Your task to perform on an android device: open a new tab in the chrome app Image 0: 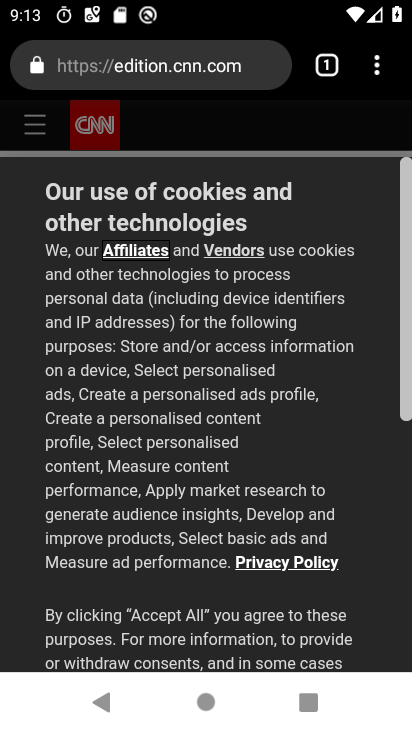
Step 0: drag from (229, 297) to (228, 162)
Your task to perform on an android device: open a new tab in the chrome app Image 1: 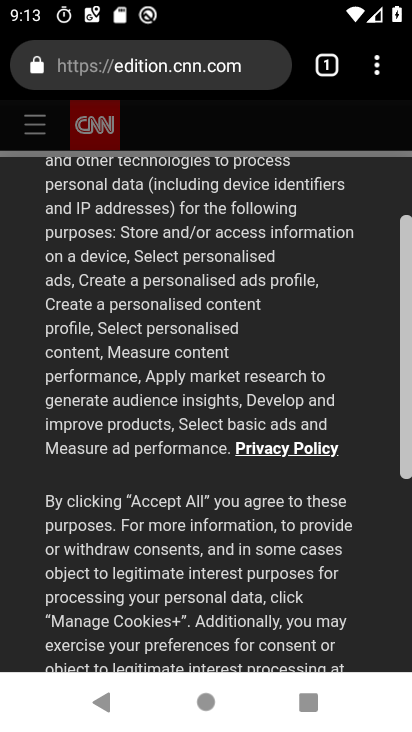
Step 1: press home button
Your task to perform on an android device: open a new tab in the chrome app Image 2: 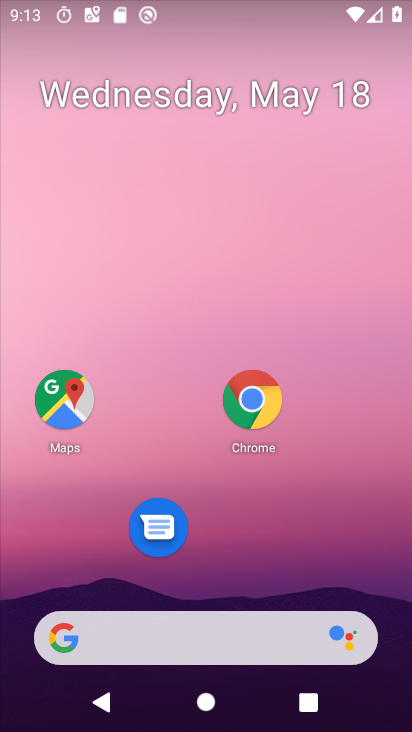
Step 2: click (255, 415)
Your task to perform on an android device: open a new tab in the chrome app Image 3: 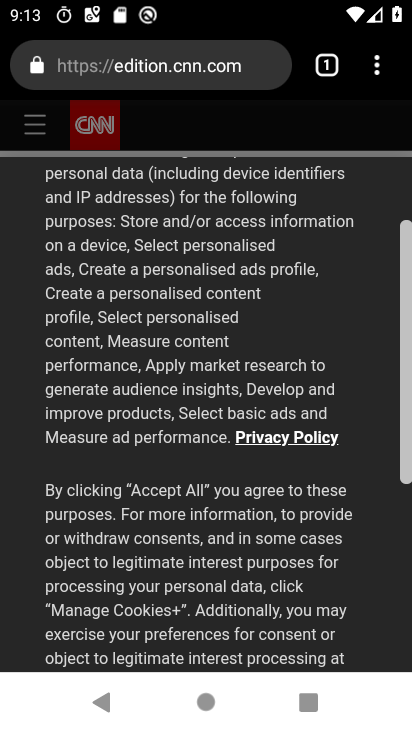
Step 3: click (334, 67)
Your task to perform on an android device: open a new tab in the chrome app Image 4: 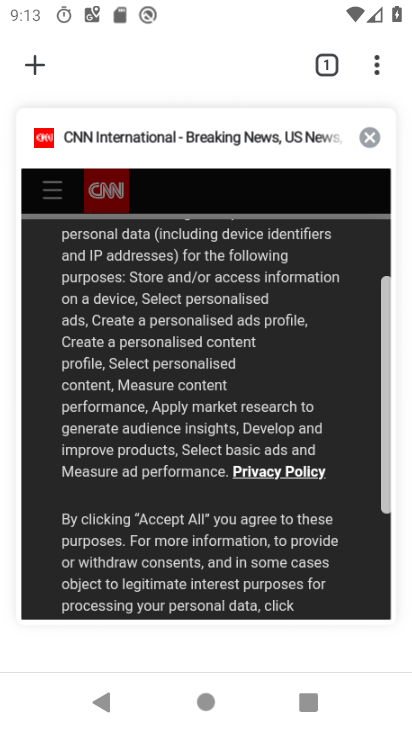
Step 4: click (42, 67)
Your task to perform on an android device: open a new tab in the chrome app Image 5: 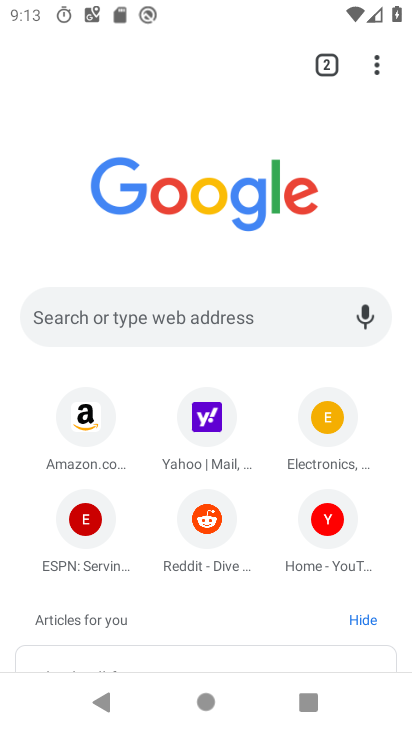
Step 5: task complete